Your task to perform on an android device: change the upload size in google photos Image 0: 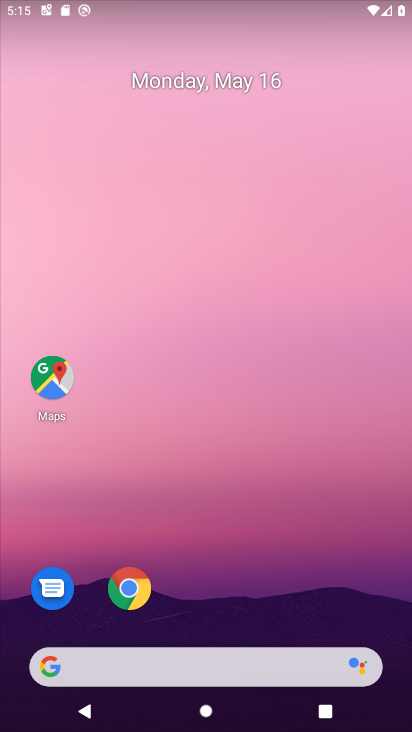
Step 0: drag from (283, 537) to (232, 66)
Your task to perform on an android device: change the upload size in google photos Image 1: 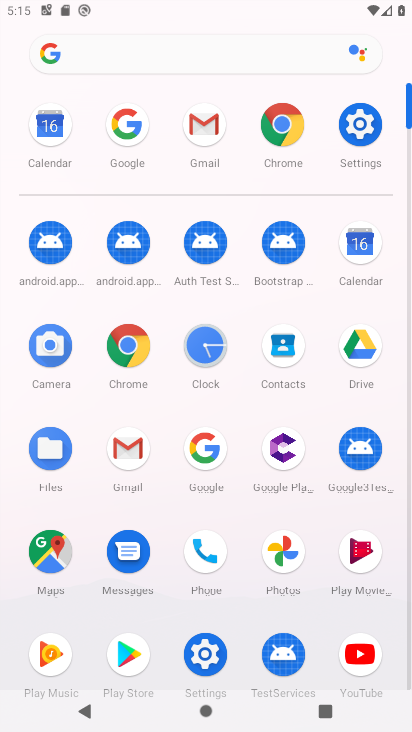
Step 1: click (285, 548)
Your task to perform on an android device: change the upload size in google photos Image 2: 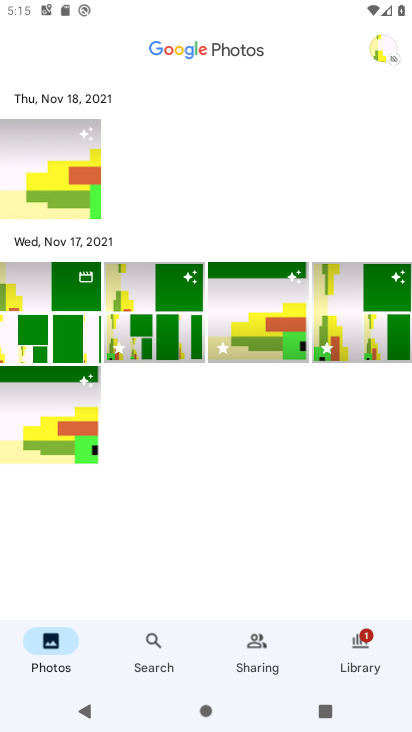
Step 2: click (386, 54)
Your task to perform on an android device: change the upload size in google photos Image 3: 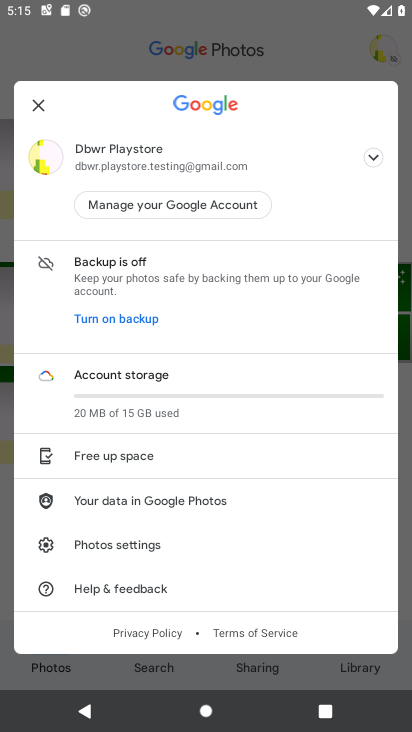
Step 3: drag from (169, 555) to (150, 376)
Your task to perform on an android device: change the upload size in google photos Image 4: 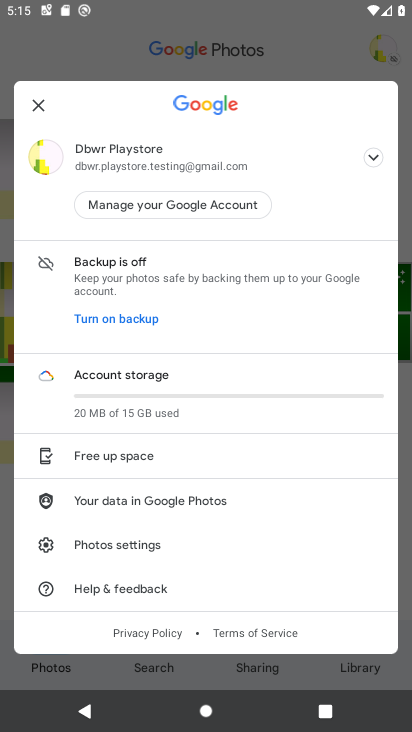
Step 4: click (141, 536)
Your task to perform on an android device: change the upload size in google photos Image 5: 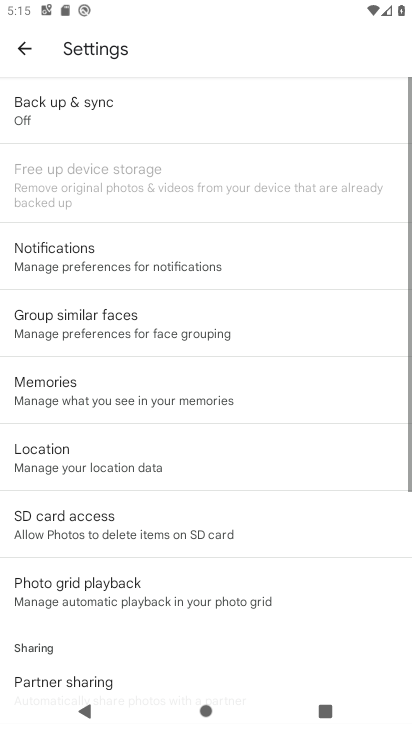
Step 5: click (116, 96)
Your task to perform on an android device: change the upload size in google photos Image 6: 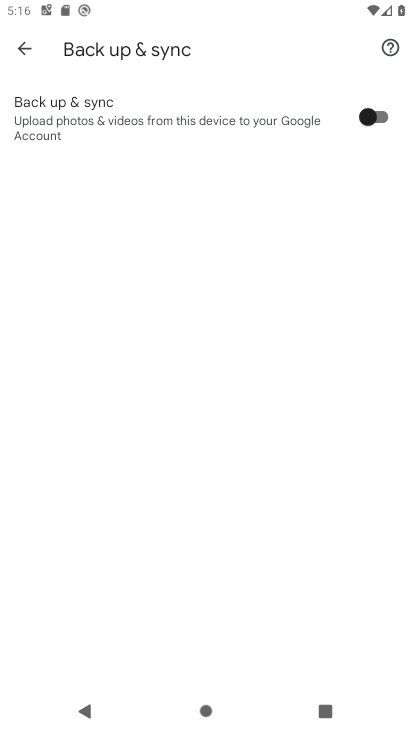
Step 6: click (371, 109)
Your task to perform on an android device: change the upload size in google photos Image 7: 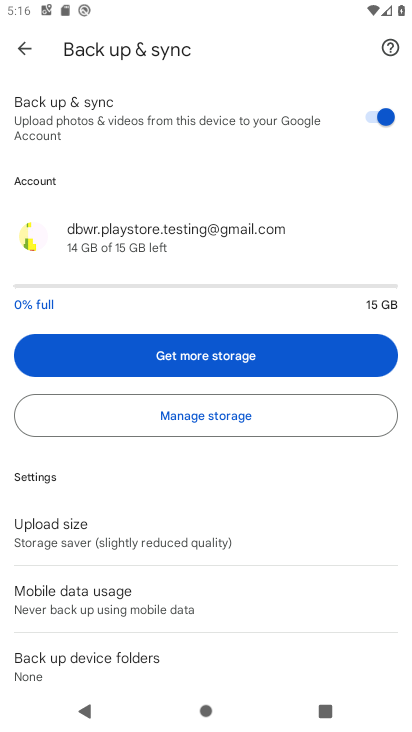
Step 7: click (133, 541)
Your task to perform on an android device: change the upload size in google photos Image 8: 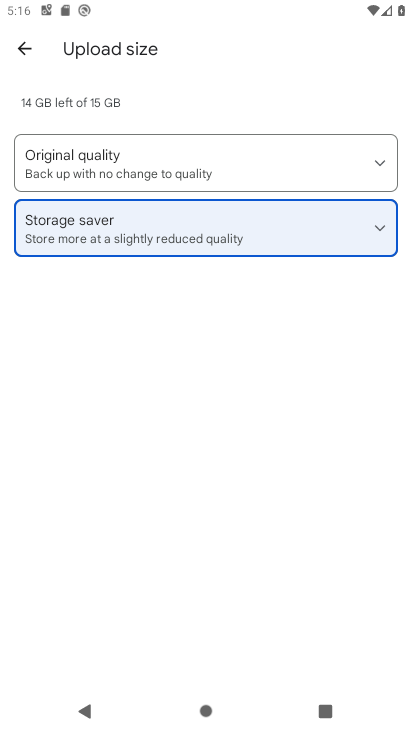
Step 8: click (152, 177)
Your task to perform on an android device: change the upload size in google photos Image 9: 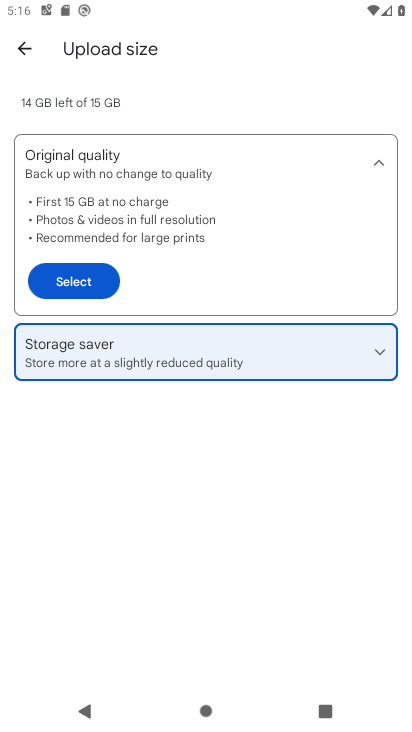
Step 9: click (79, 285)
Your task to perform on an android device: change the upload size in google photos Image 10: 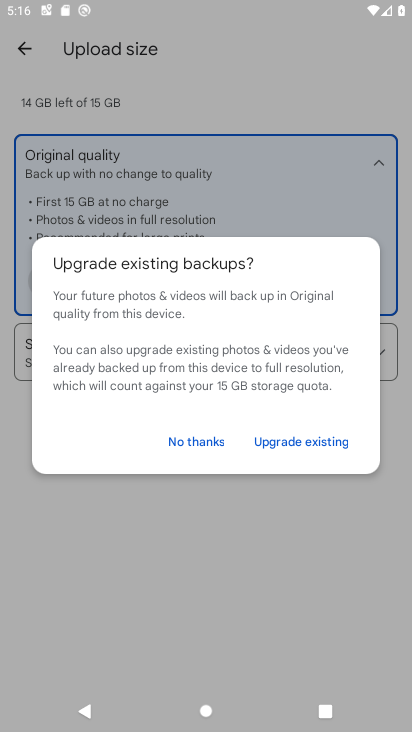
Step 10: task complete